Your task to perform on an android device: How big is the earth? Image 0: 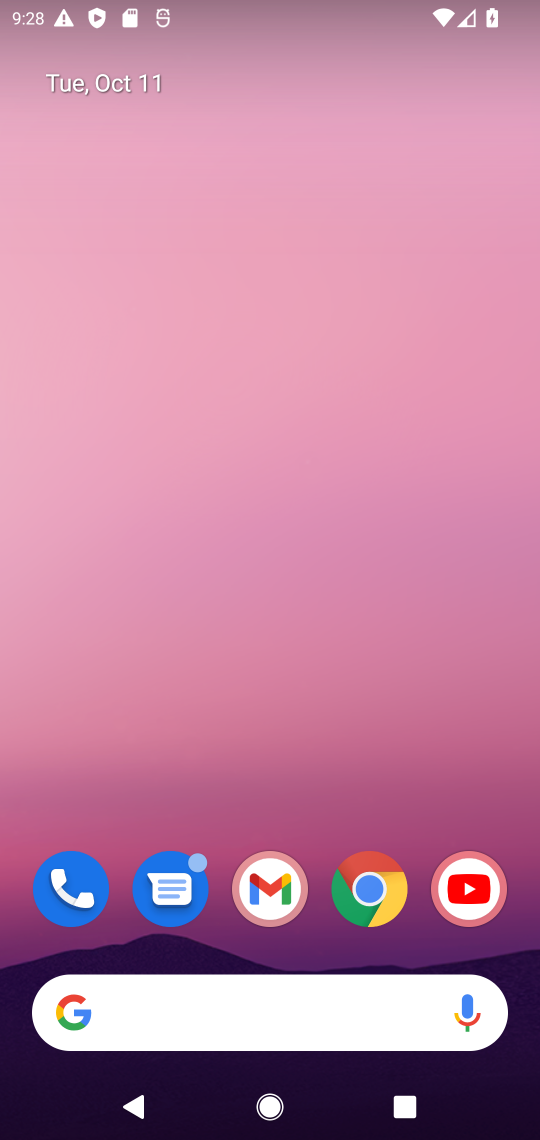
Step 0: type "how big is the earth"
Your task to perform on an android device: How big is the earth? Image 1: 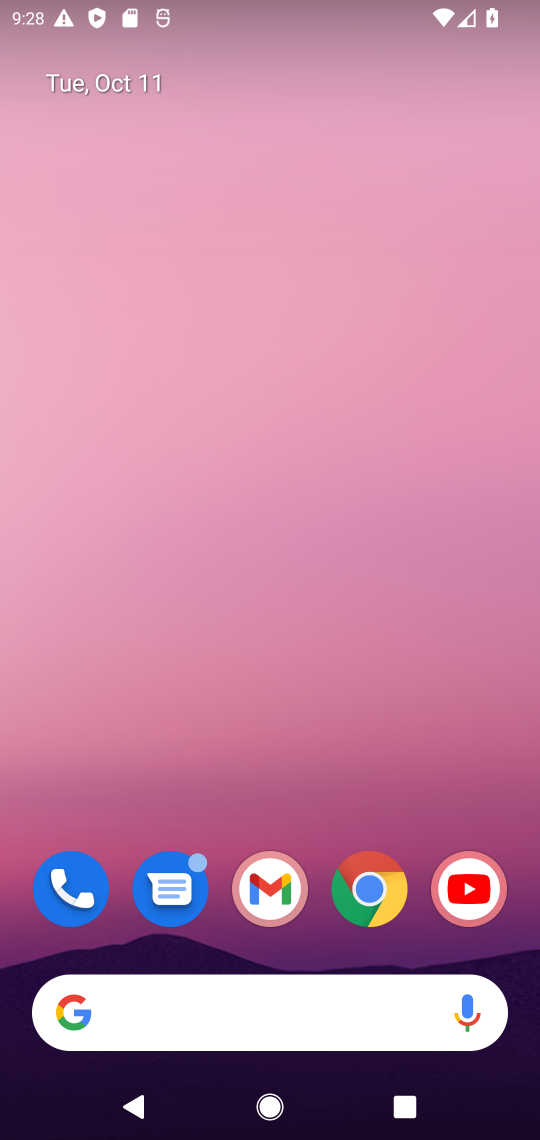
Step 1: click (338, 1027)
Your task to perform on an android device: How big is the earth? Image 2: 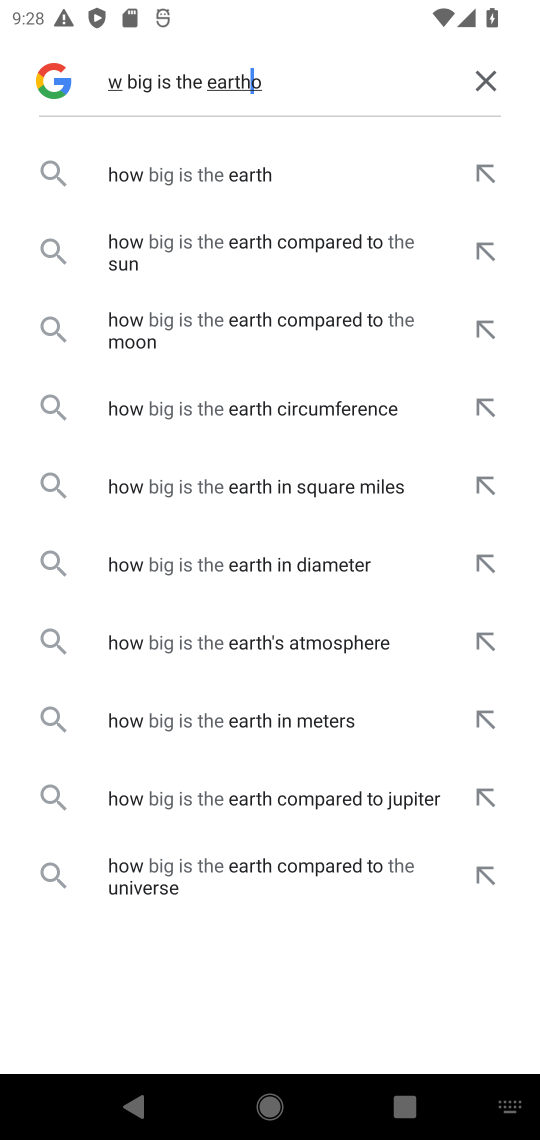
Step 2: click (246, 170)
Your task to perform on an android device: How big is the earth? Image 3: 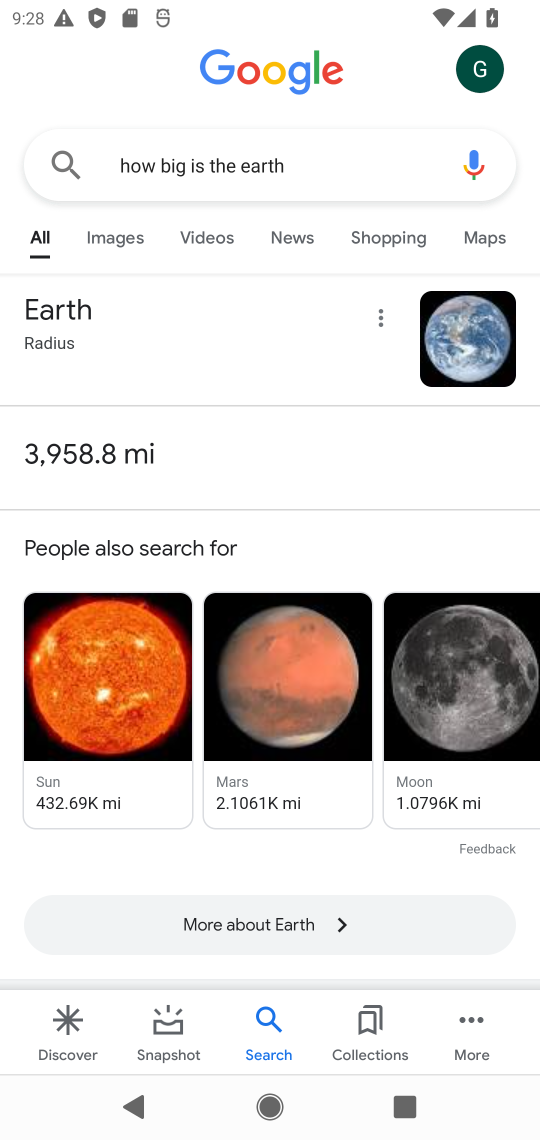
Step 3: task complete